Your task to perform on an android device: turn off data saver in the chrome app Image 0: 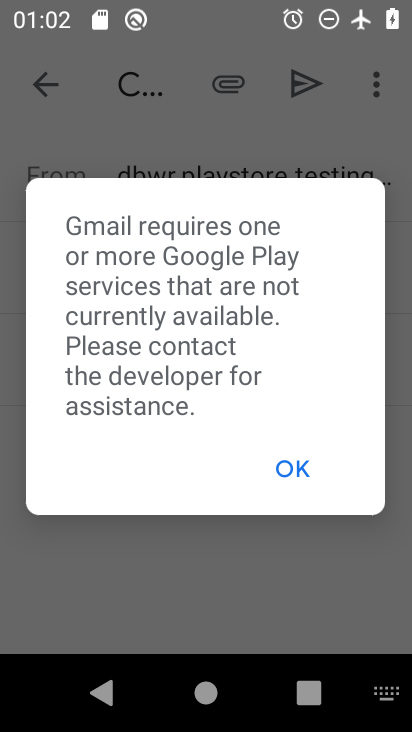
Step 0: press home button
Your task to perform on an android device: turn off data saver in the chrome app Image 1: 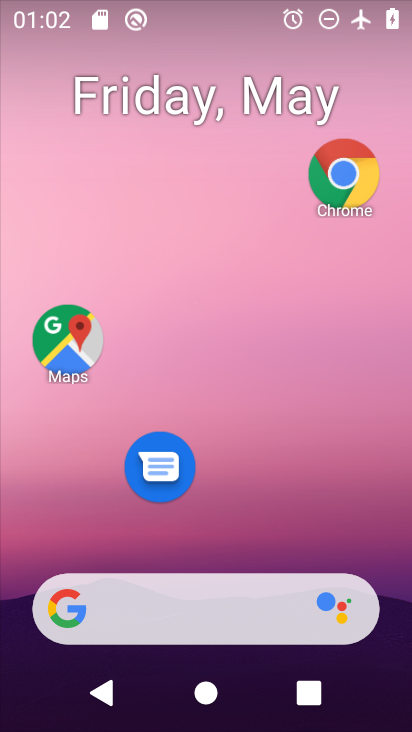
Step 1: click (342, 168)
Your task to perform on an android device: turn off data saver in the chrome app Image 2: 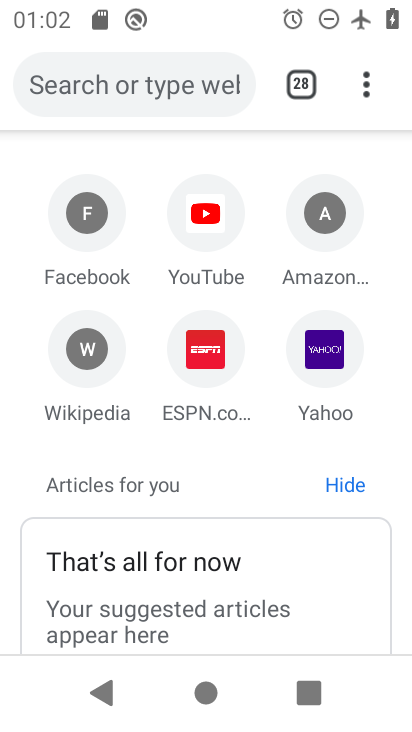
Step 2: click (357, 87)
Your task to perform on an android device: turn off data saver in the chrome app Image 3: 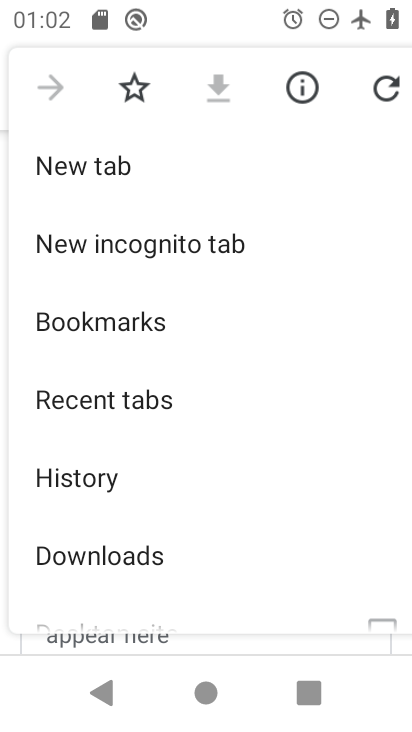
Step 3: drag from (163, 571) to (234, 209)
Your task to perform on an android device: turn off data saver in the chrome app Image 4: 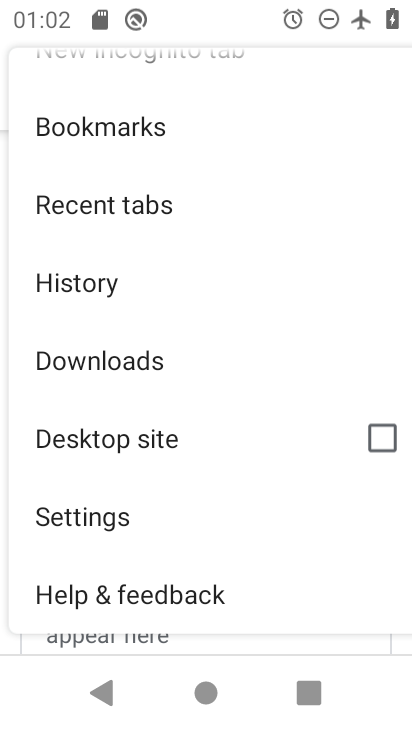
Step 4: click (111, 513)
Your task to perform on an android device: turn off data saver in the chrome app Image 5: 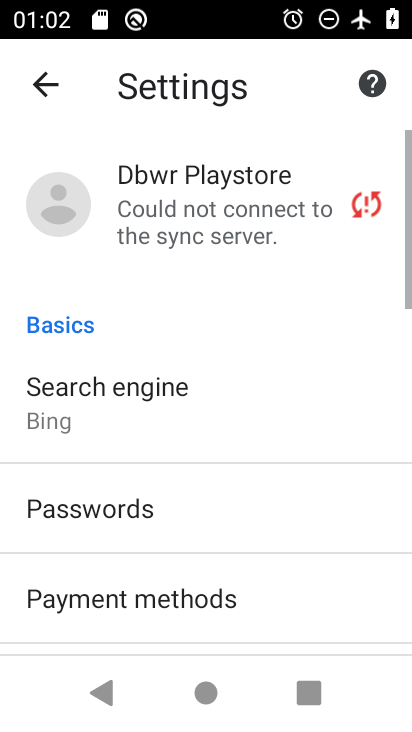
Step 5: drag from (163, 543) to (238, 223)
Your task to perform on an android device: turn off data saver in the chrome app Image 6: 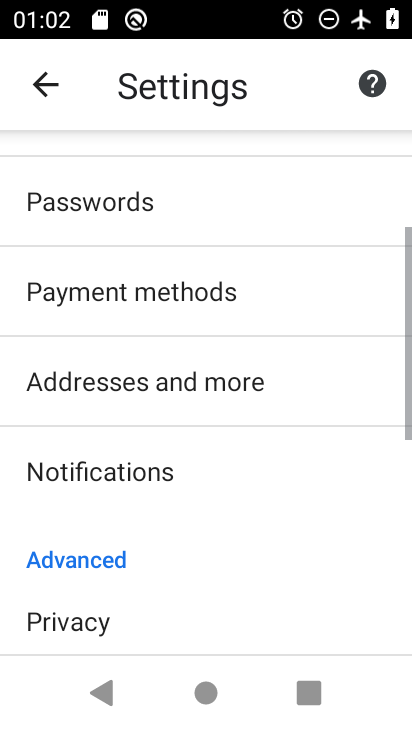
Step 6: drag from (196, 503) to (301, 167)
Your task to perform on an android device: turn off data saver in the chrome app Image 7: 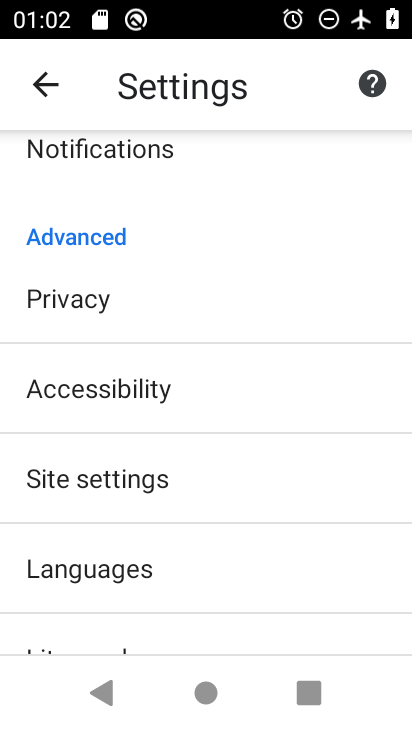
Step 7: drag from (154, 551) to (220, 331)
Your task to perform on an android device: turn off data saver in the chrome app Image 8: 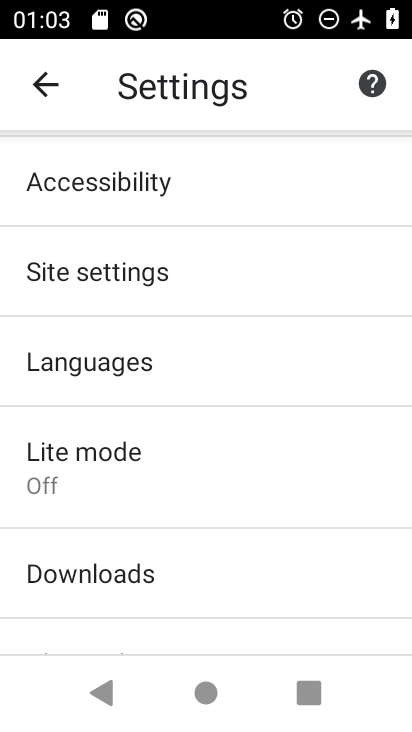
Step 8: click (177, 271)
Your task to perform on an android device: turn off data saver in the chrome app Image 9: 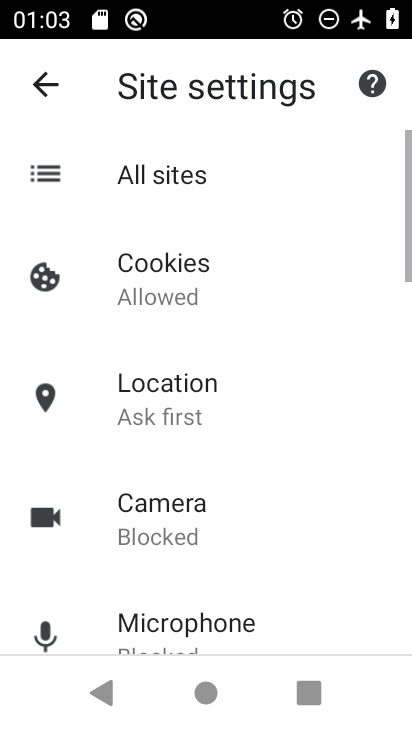
Step 9: click (66, 57)
Your task to perform on an android device: turn off data saver in the chrome app Image 10: 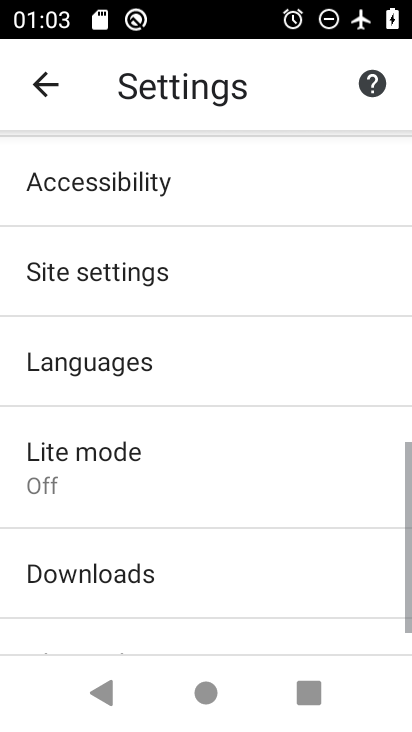
Step 10: click (145, 472)
Your task to perform on an android device: turn off data saver in the chrome app Image 11: 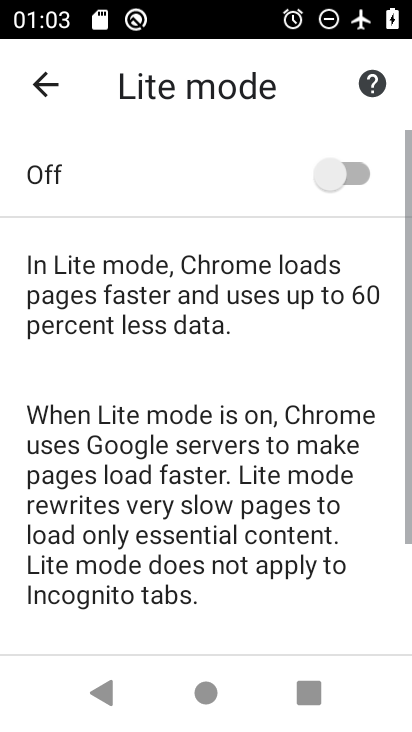
Step 11: task complete